Your task to perform on an android device: Is it going to rain this weekend? Image 0: 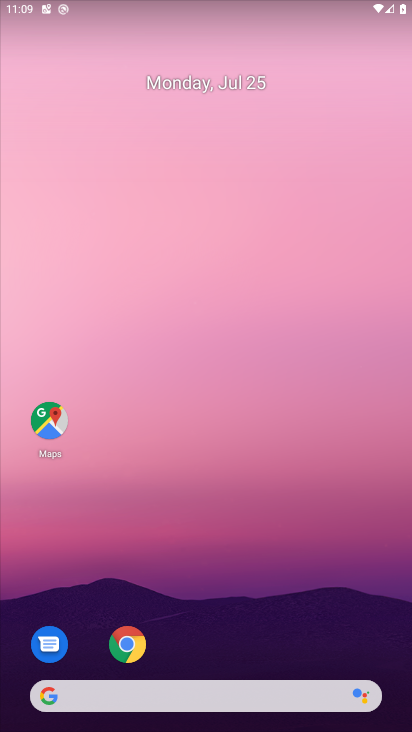
Step 0: click (129, 660)
Your task to perform on an android device: Is it going to rain this weekend? Image 1: 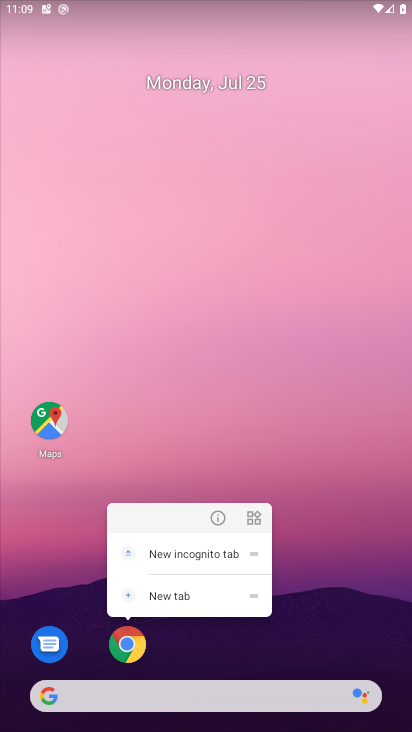
Step 1: click (146, 650)
Your task to perform on an android device: Is it going to rain this weekend? Image 2: 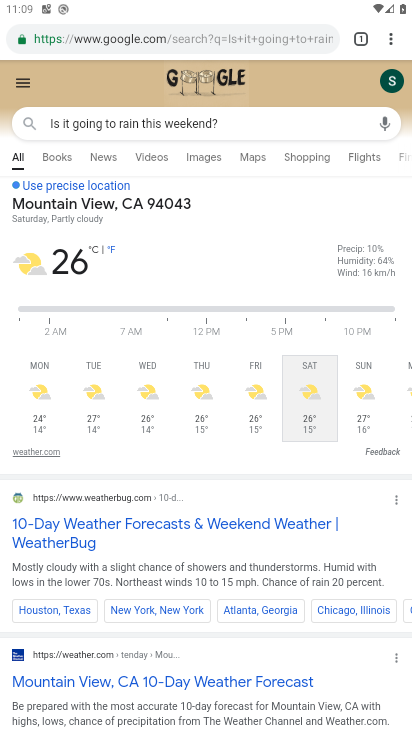
Step 2: click (279, 31)
Your task to perform on an android device: Is it going to rain this weekend? Image 3: 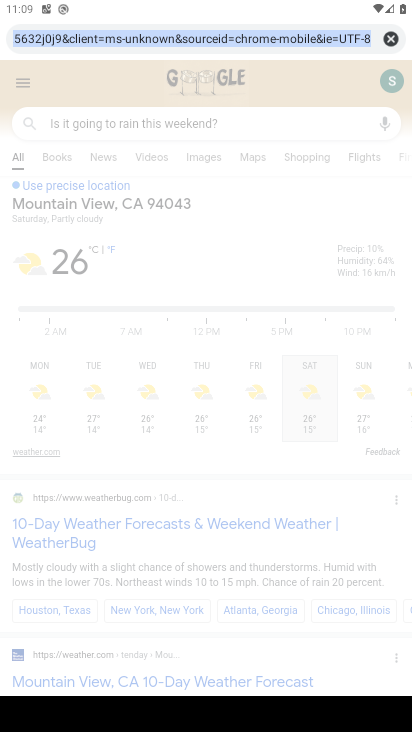
Step 3: type "Is it going to rain this weekend?"
Your task to perform on an android device: Is it going to rain this weekend? Image 4: 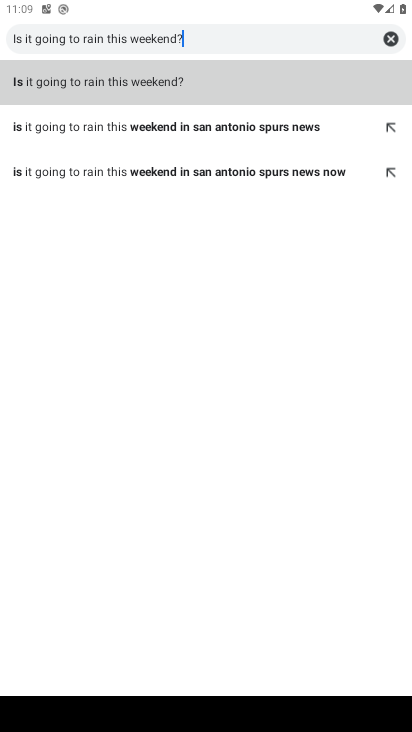
Step 4: type ""
Your task to perform on an android device: Is it going to rain this weekend? Image 5: 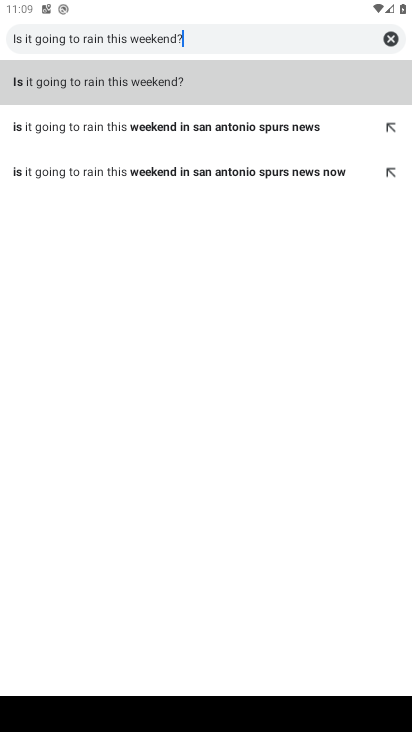
Step 5: click (172, 74)
Your task to perform on an android device: Is it going to rain this weekend? Image 6: 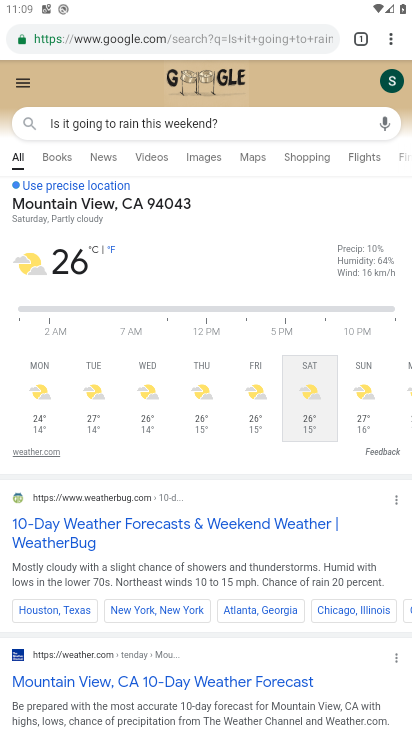
Step 6: task complete